Your task to perform on an android device: Go to settings Image 0: 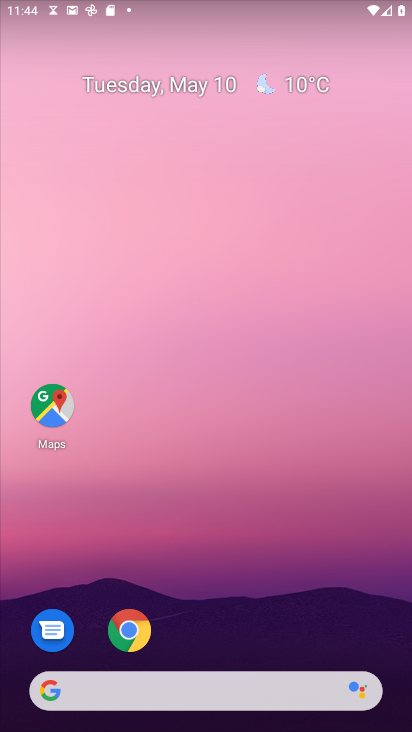
Step 0: drag from (254, 637) to (306, 78)
Your task to perform on an android device: Go to settings Image 1: 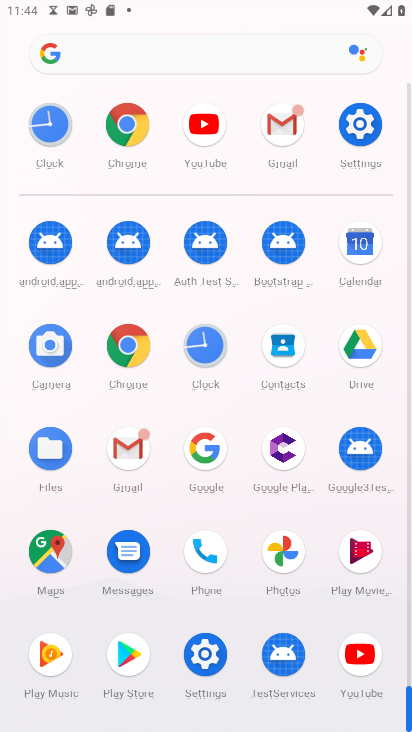
Step 1: click (367, 109)
Your task to perform on an android device: Go to settings Image 2: 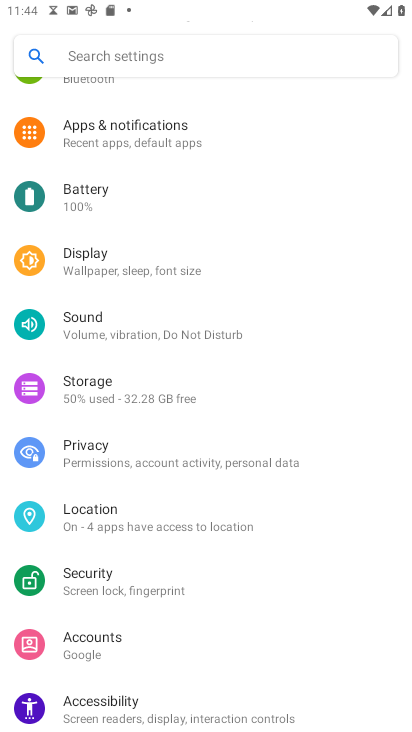
Step 2: task complete